Your task to perform on an android device: Open Google Chrome and open the bookmarks view Image 0: 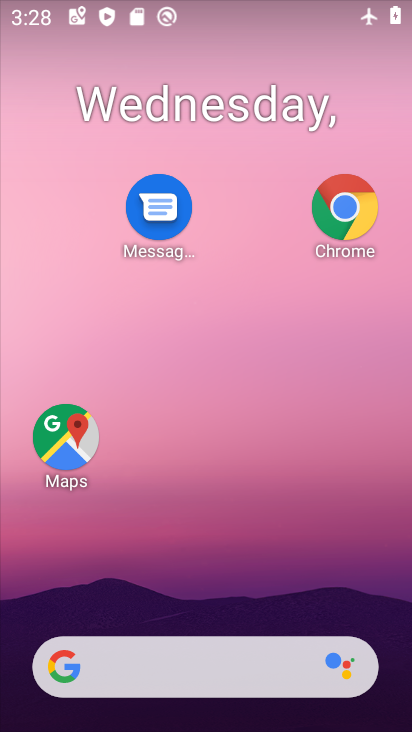
Step 0: drag from (211, 611) to (210, 4)
Your task to perform on an android device: Open Google Chrome and open the bookmarks view Image 1: 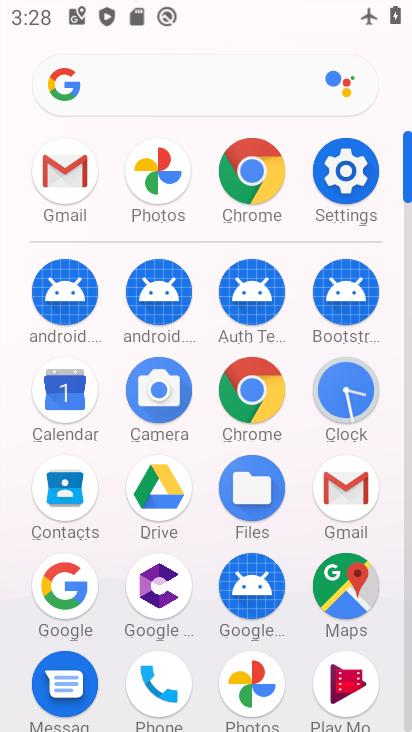
Step 1: click (256, 390)
Your task to perform on an android device: Open Google Chrome and open the bookmarks view Image 2: 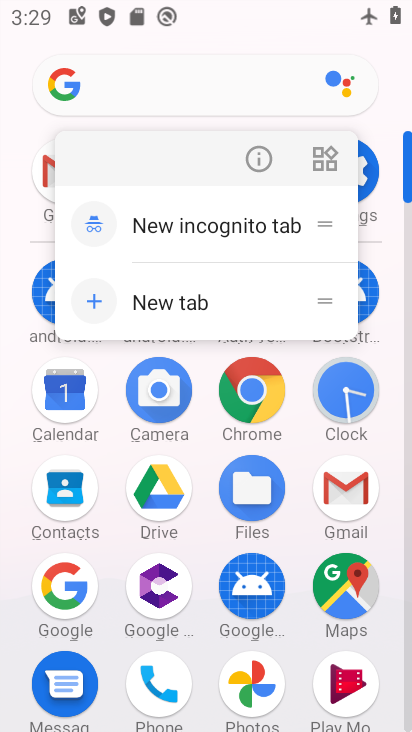
Step 2: click (250, 163)
Your task to perform on an android device: Open Google Chrome and open the bookmarks view Image 3: 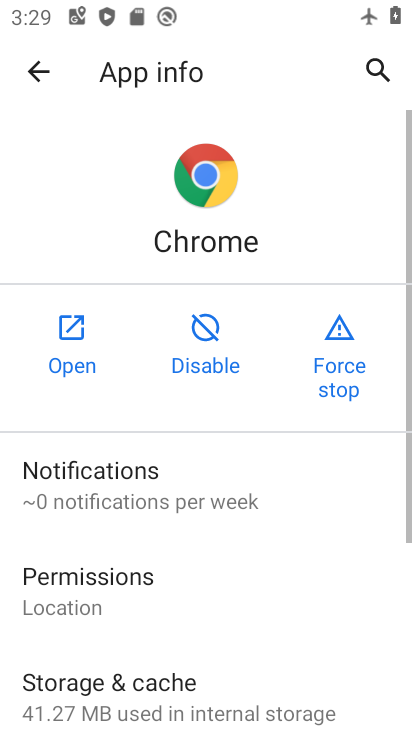
Step 3: click (56, 353)
Your task to perform on an android device: Open Google Chrome and open the bookmarks view Image 4: 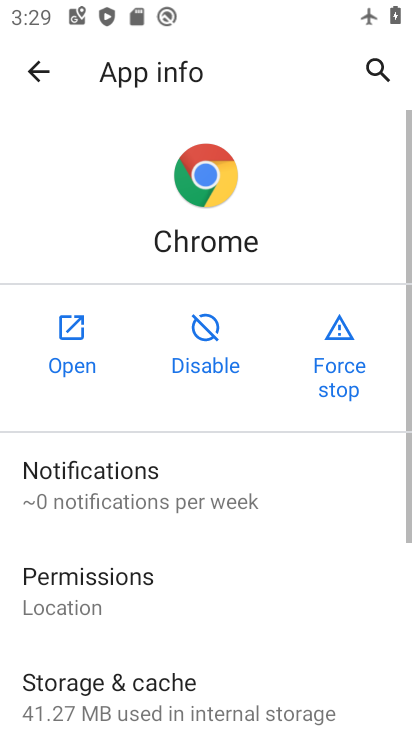
Step 4: click (56, 353)
Your task to perform on an android device: Open Google Chrome and open the bookmarks view Image 5: 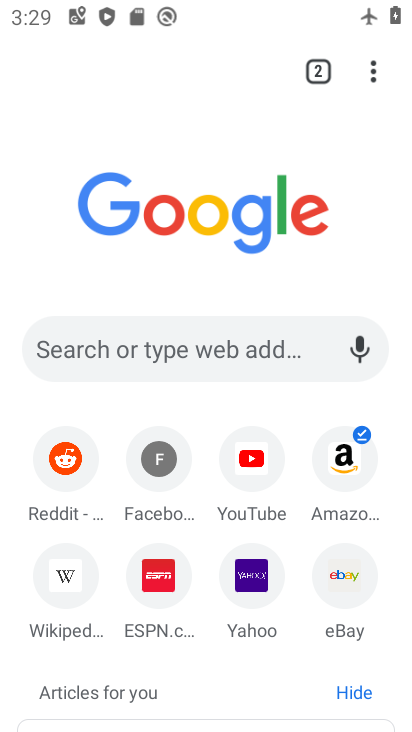
Step 5: task complete